Your task to perform on an android device: Play the last video I watched on Youtube Image 0: 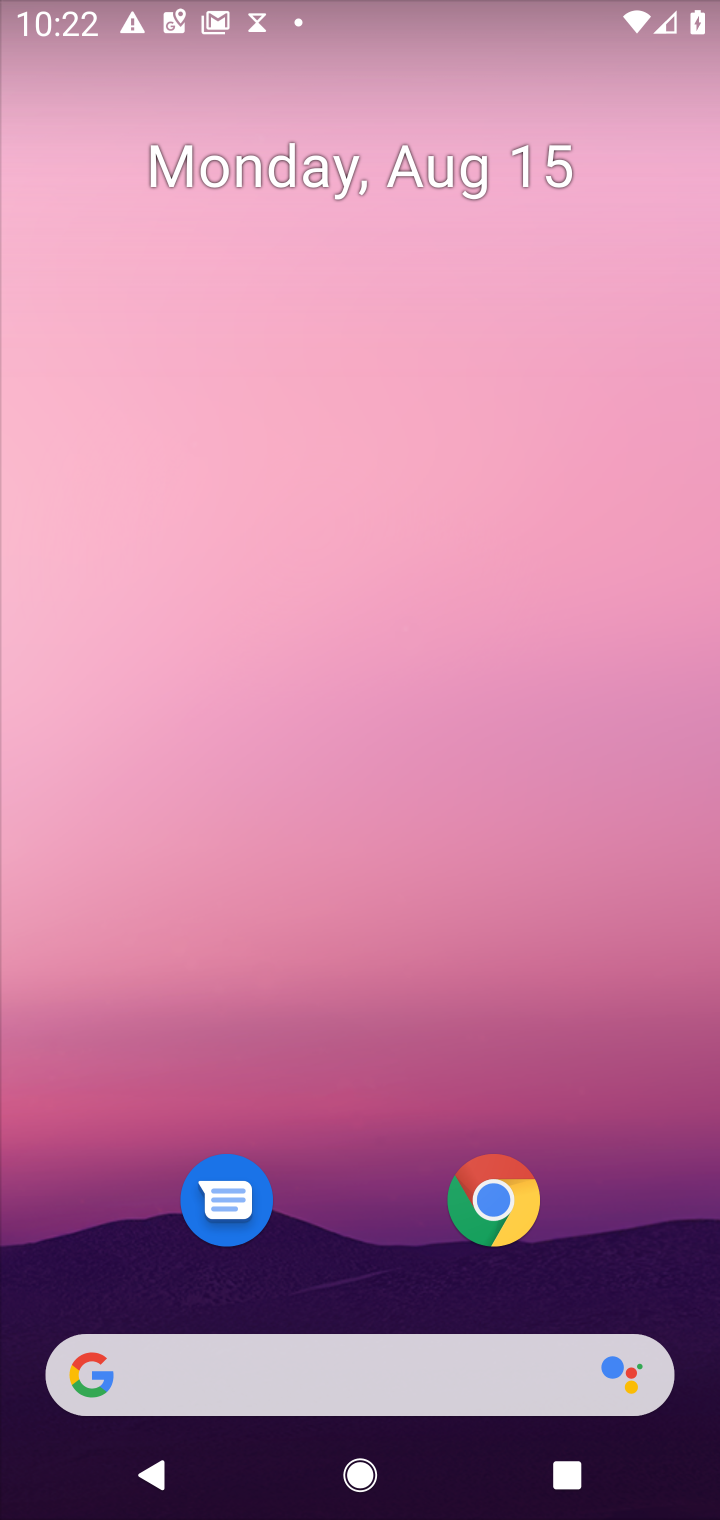
Step 0: drag from (367, 1216) to (429, 198)
Your task to perform on an android device: Play the last video I watched on Youtube Image 1: 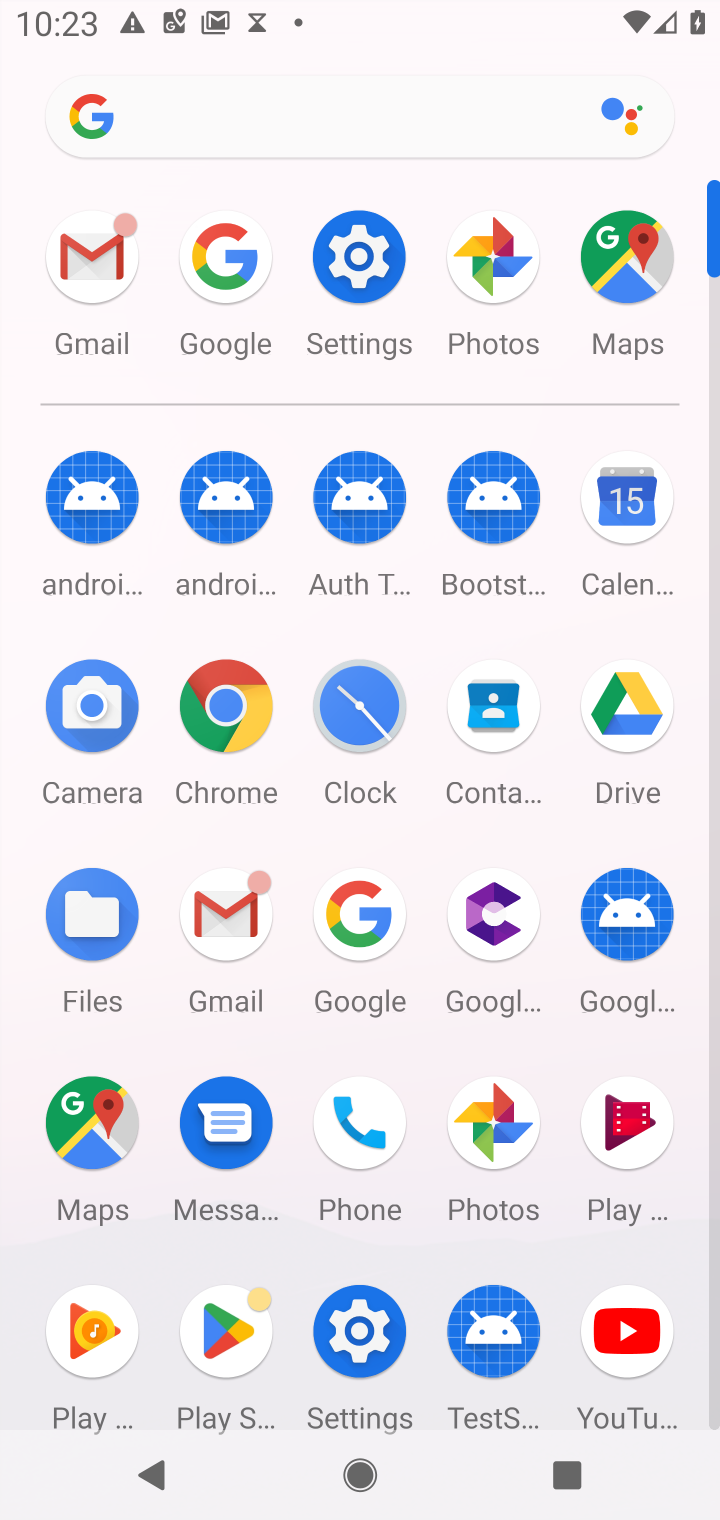
Step 1: click (614, 1319)
Your task to perform on an android device: Play the last video I watched on Youtube Image 2: 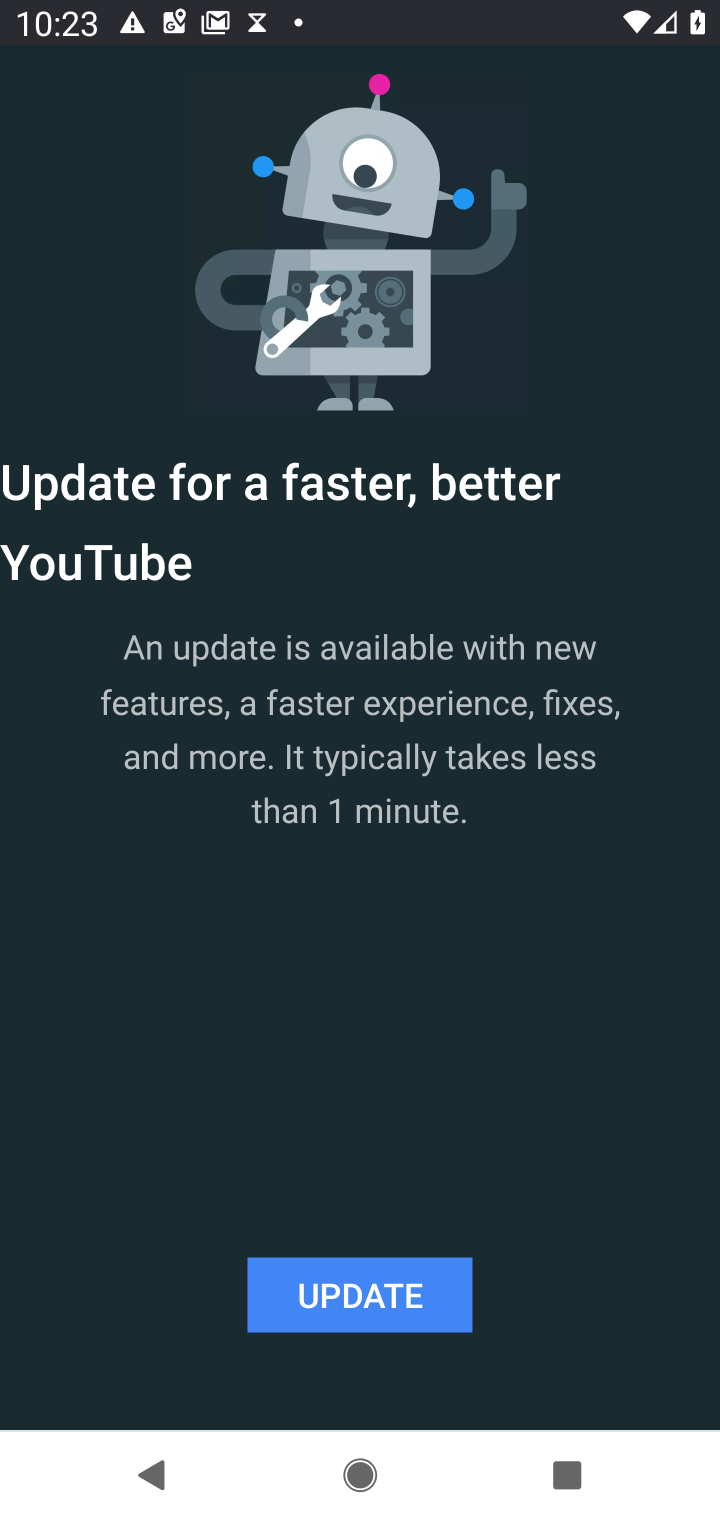
Step 2: click (402, 1278)
Your task to perform on an android device: Play the last video I watched on Youtube Image 3: 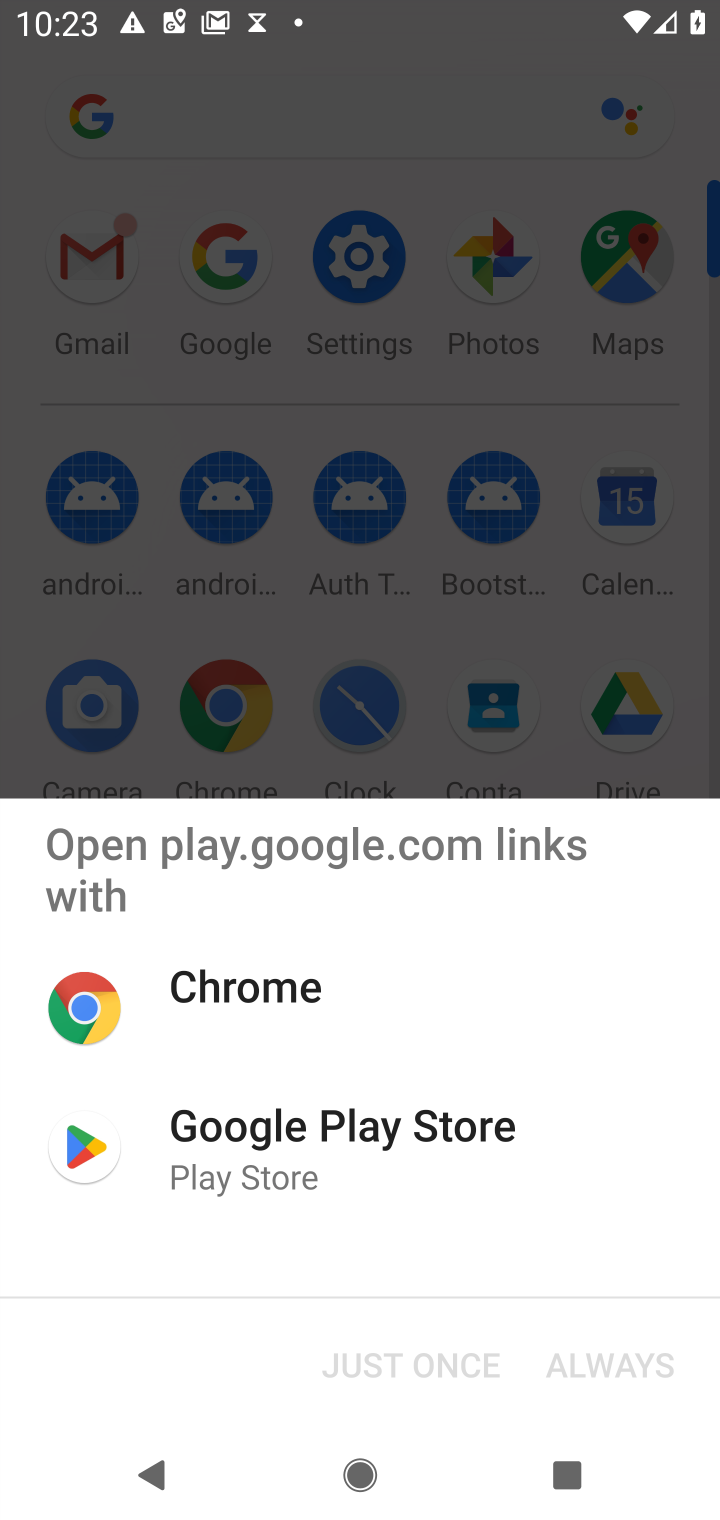
Step 3: click (287, 1131)
Your task to perform on an android device: Play the last video I watched on Youtube Image 4: 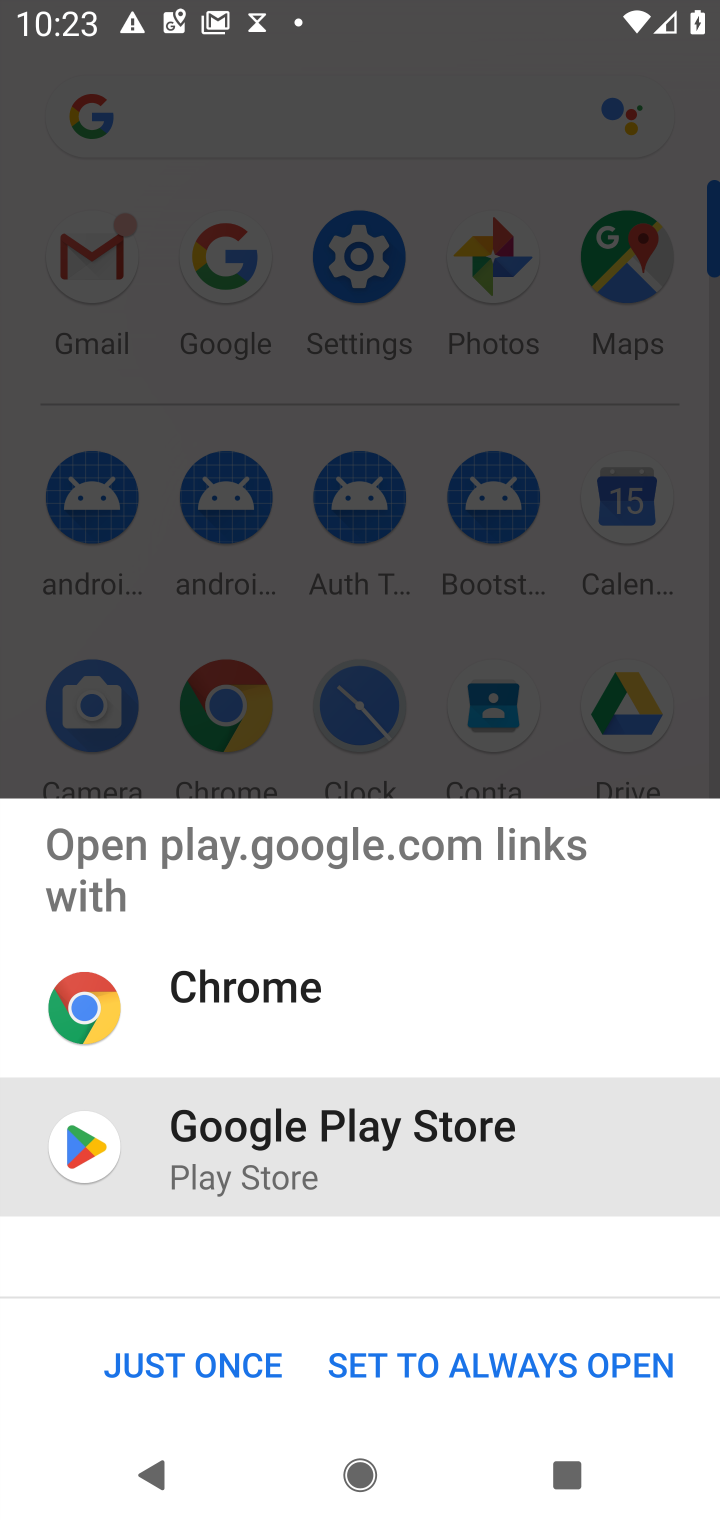
Step 4: click (236, 1378)
Your task to perform on an android device: Play the last video I watched on Youtube Image 5: 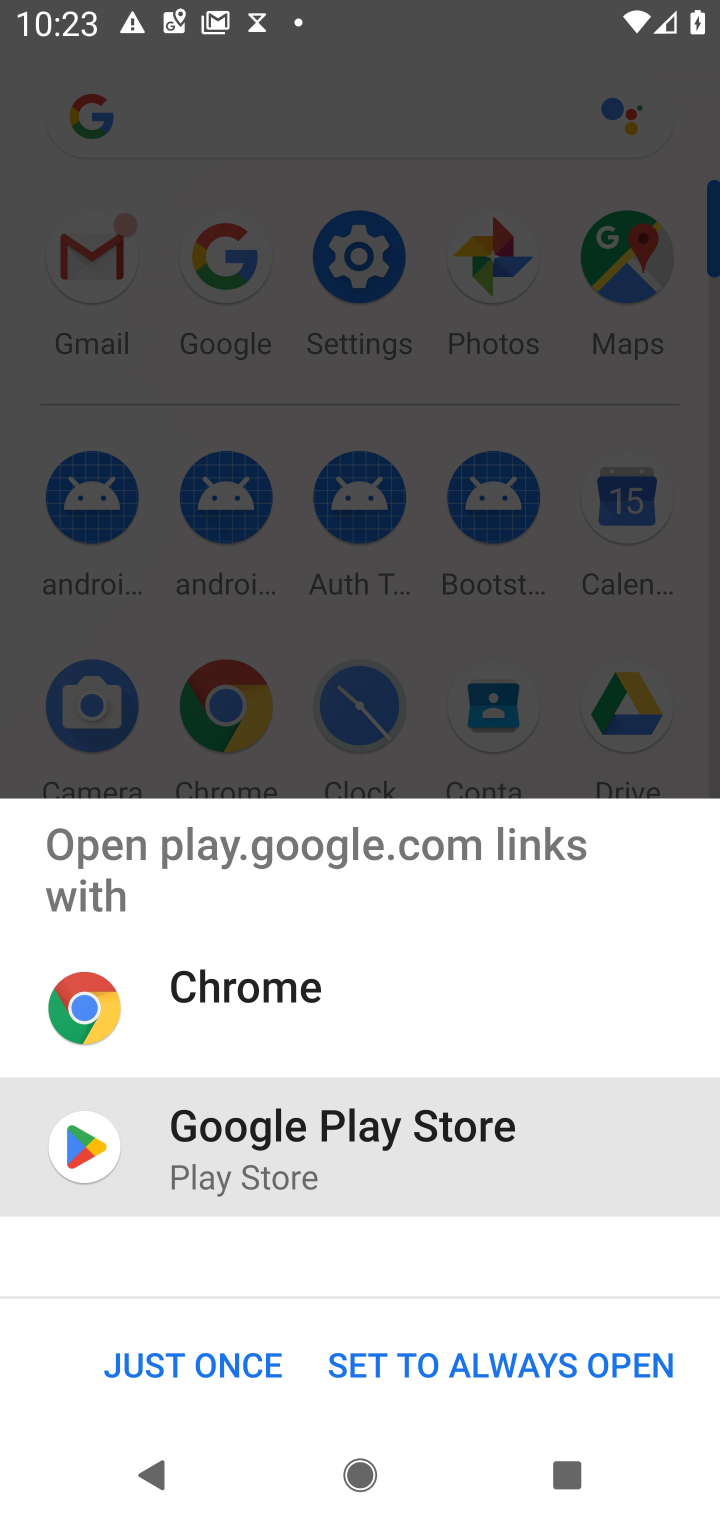
Step 5: click (183, 1360)
Your task to perform on an android device: Play the last video I watched on Youtube Image 6: 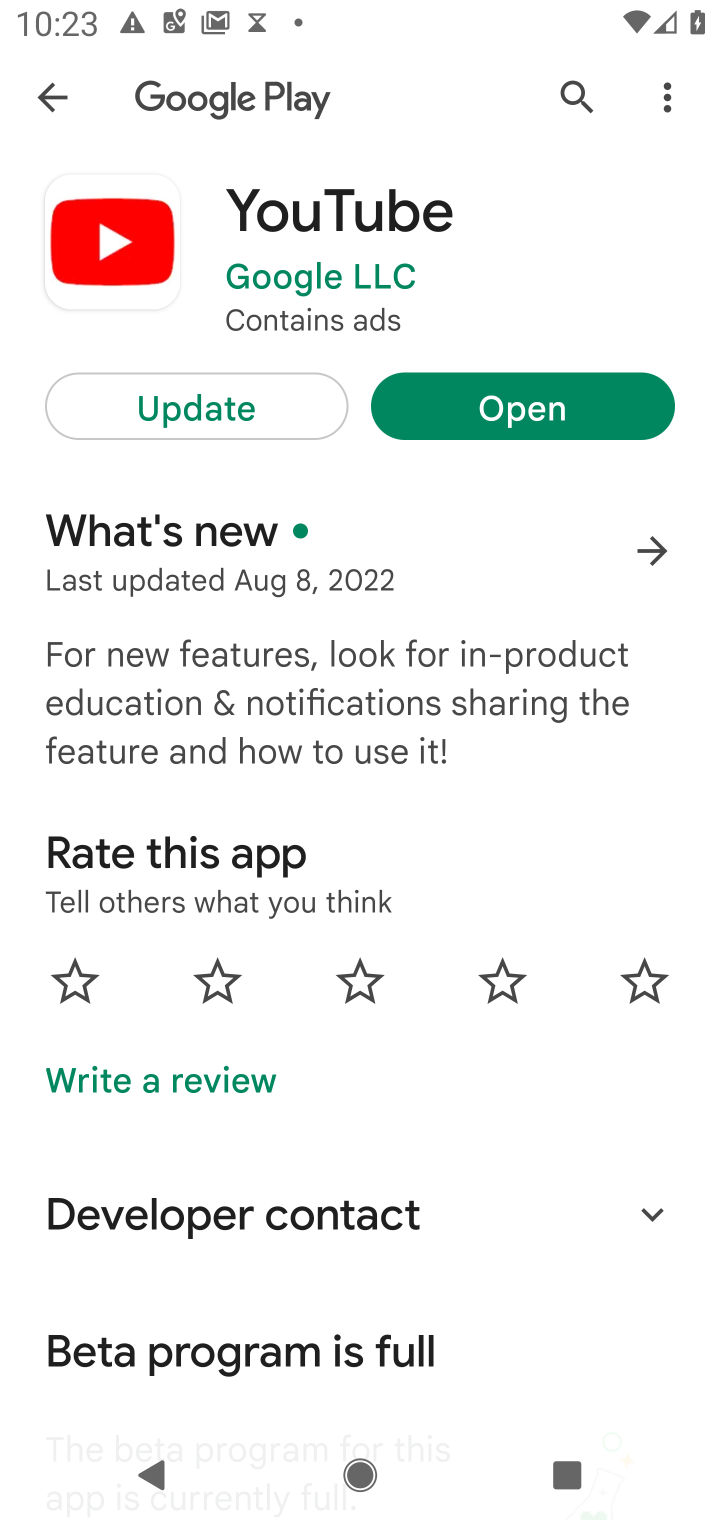
Step 6: click (230, 430)
Your task to perform on an android device: Play the last video I watched on Youtube Image 7: 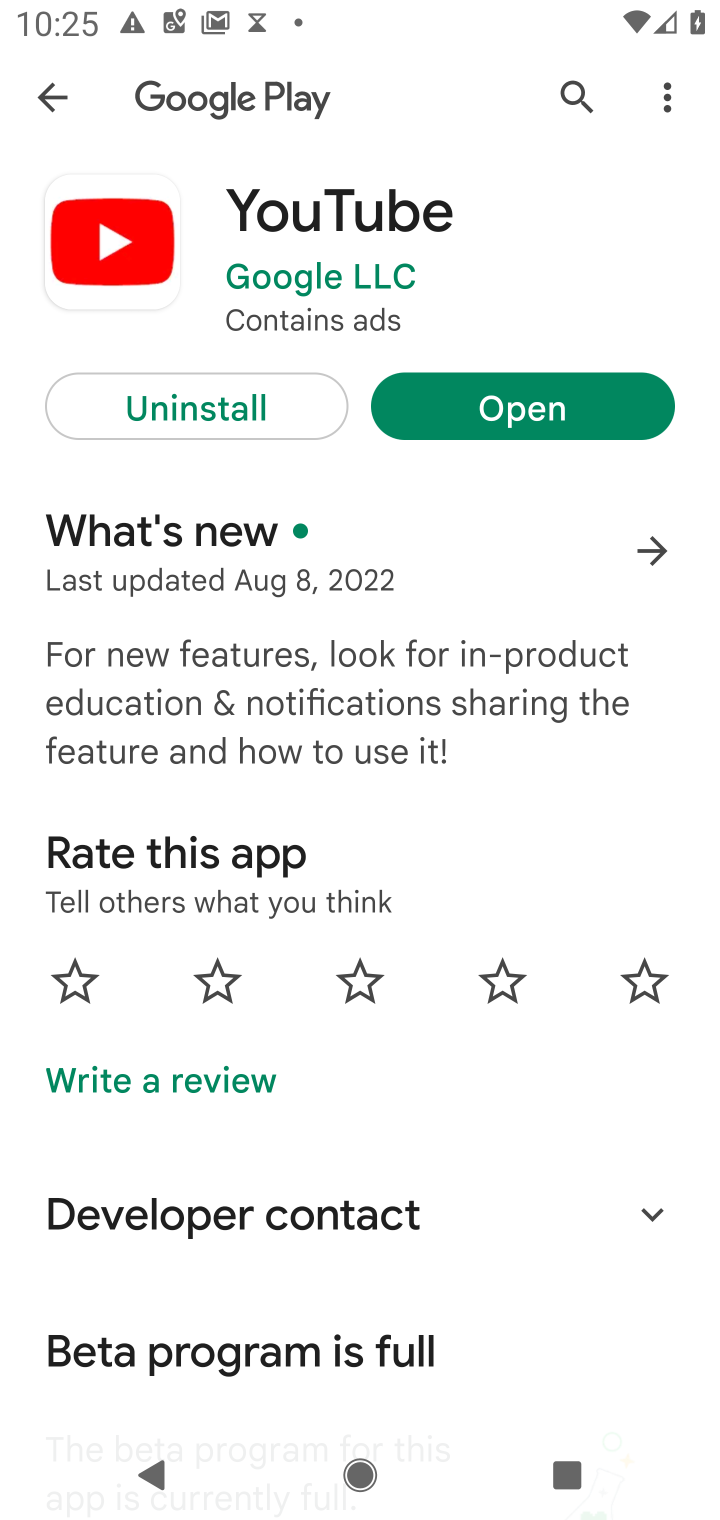
Step 7: click (488, 409)
Your task to perform on an android device: Play the last video I watched on Youtube Image 8: 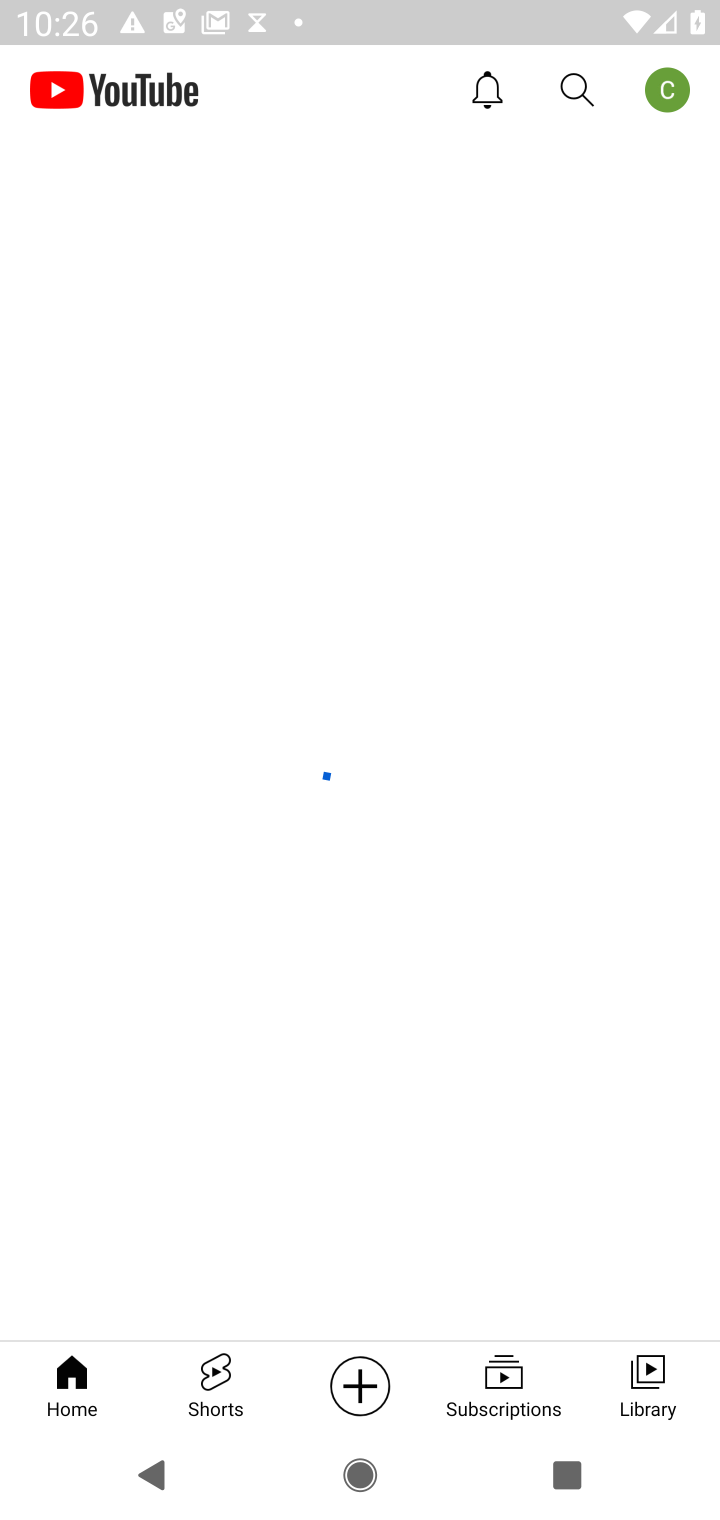
Step 8: click (633, 1403)
Your task to perform on an android device: Play the last video I watched on Youtube Image 9: 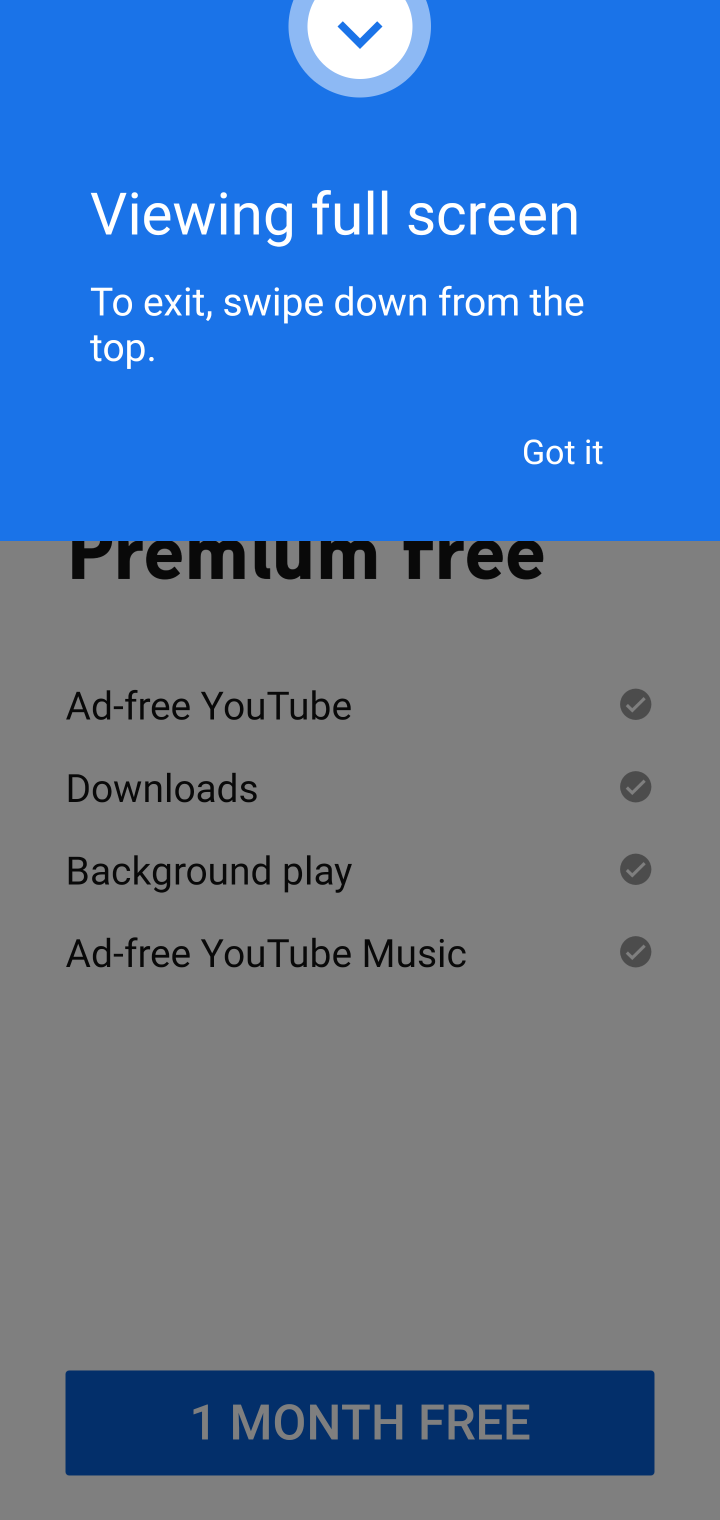
Step 9: click (586, 453)
Your task to perform on an android device: Play the last video I watched on Youtube Image 10: 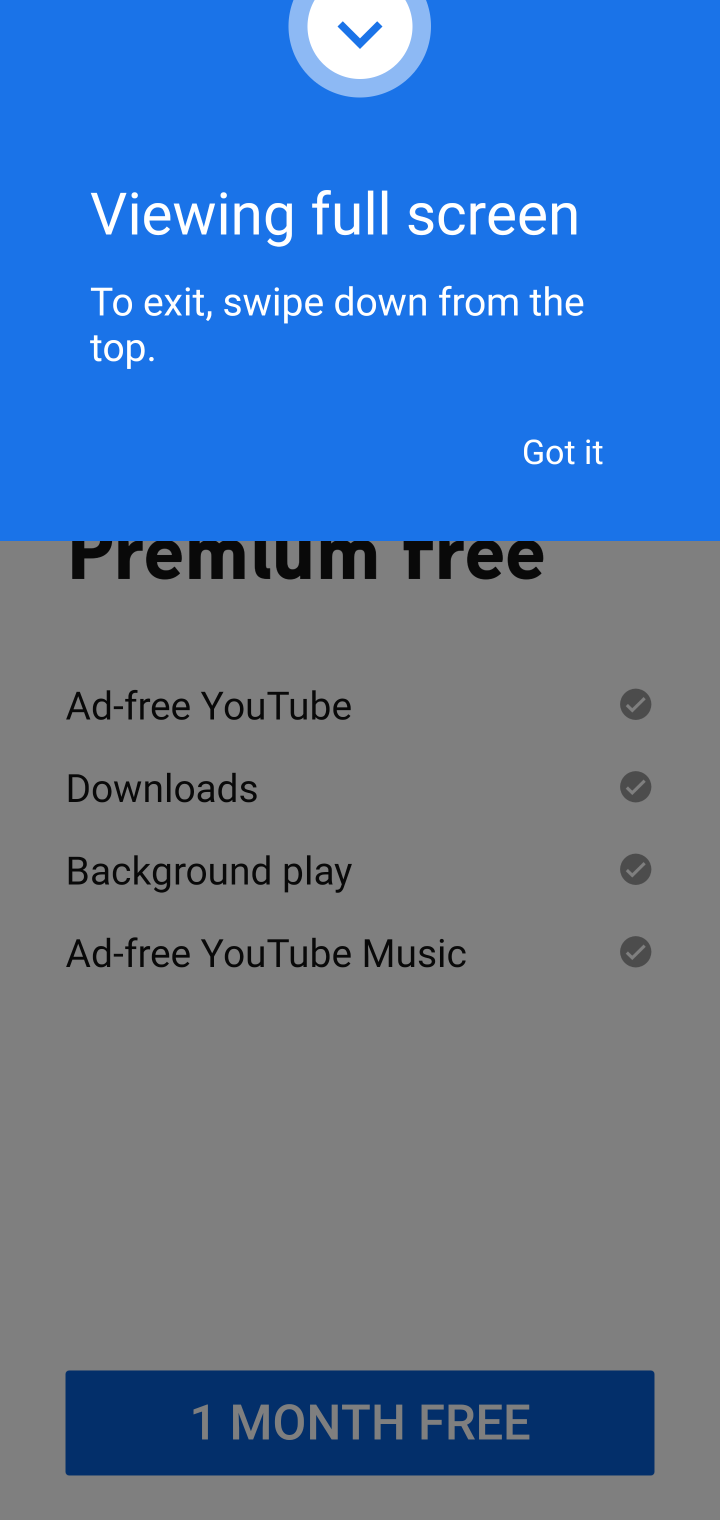
Step 10: click (540, 469)
Your task to perform on an android device: Play the last video I watched on Youtube Image 11: 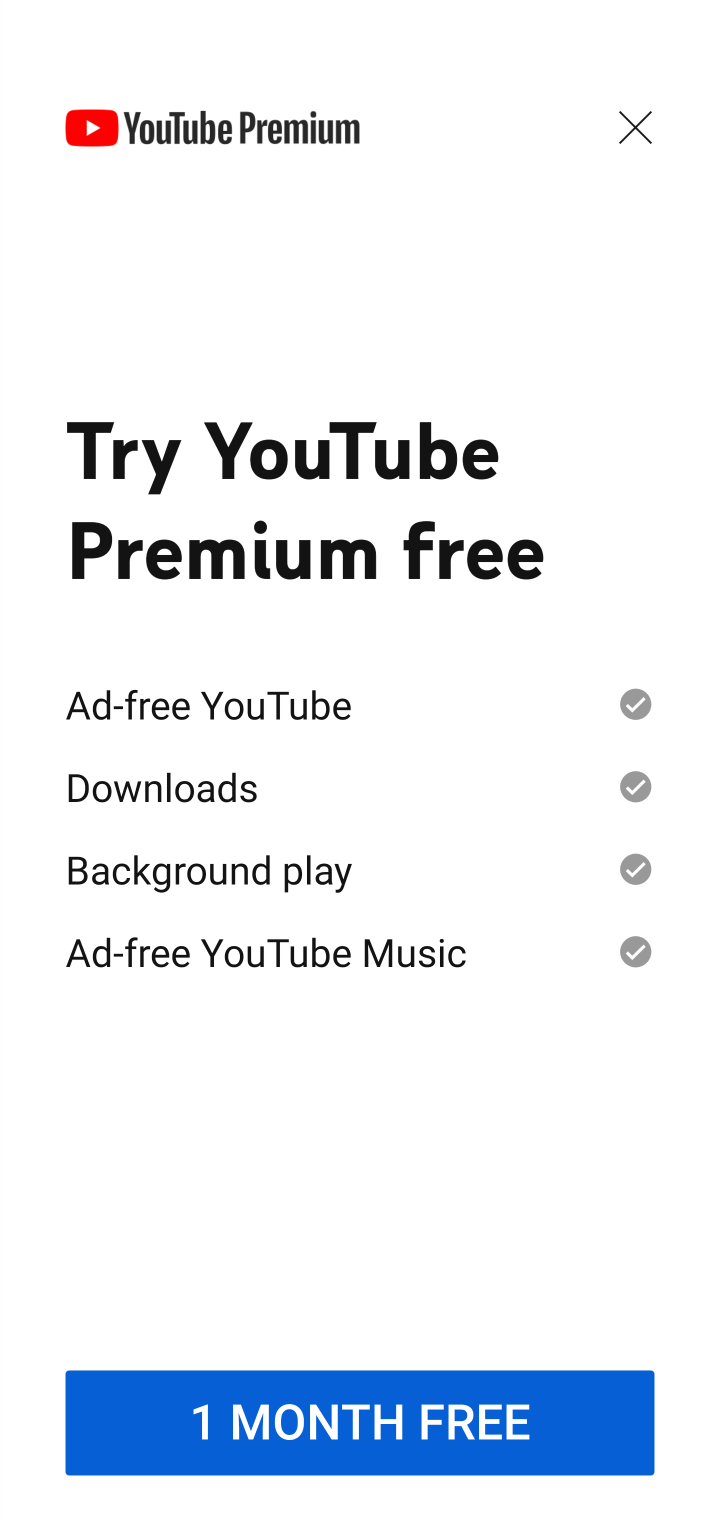
Step 11: click (644, 135)
Your task to perform on an android device: Play the last video I watched on Youtube Image 12: 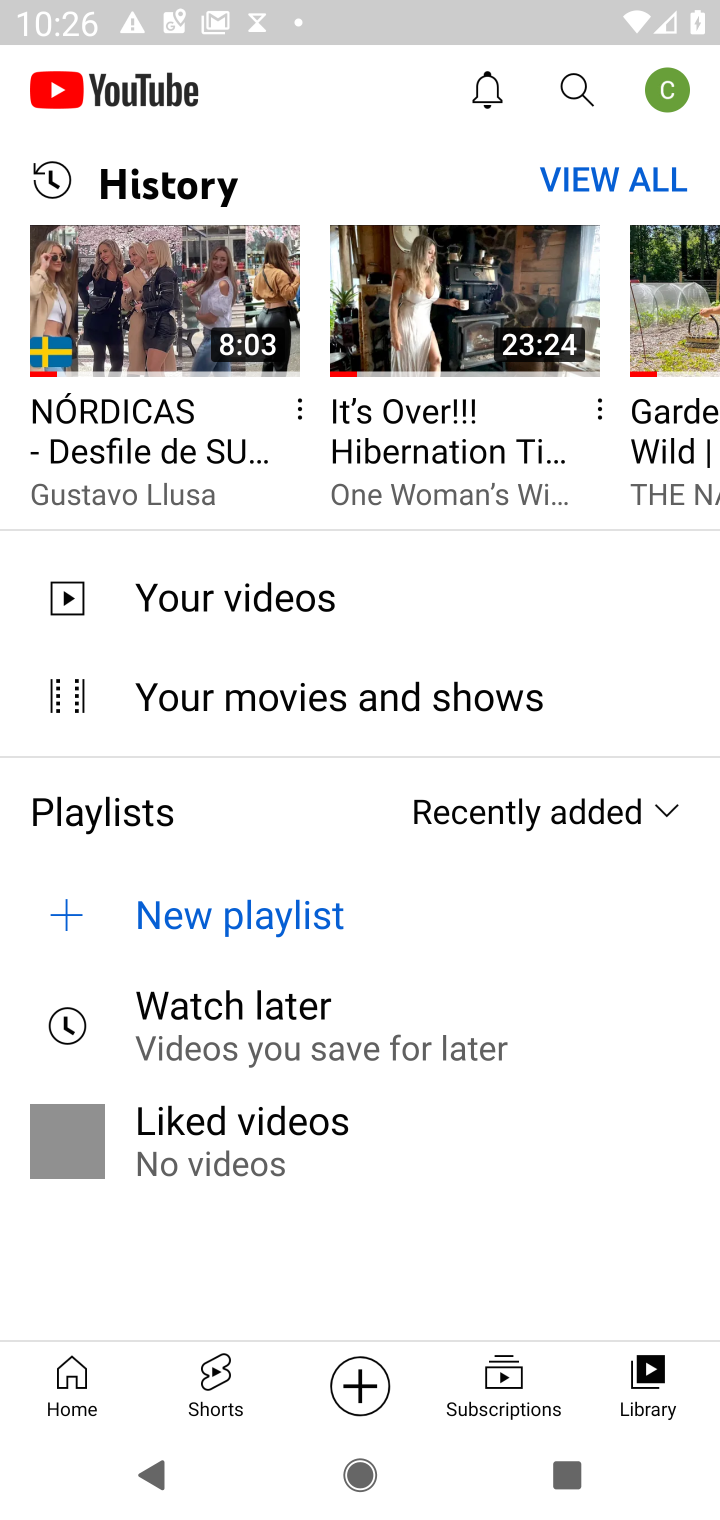
Step 12: click (184, 344)
Your task to perform on an android device: Play the last video I watched on Youtube Image 13: 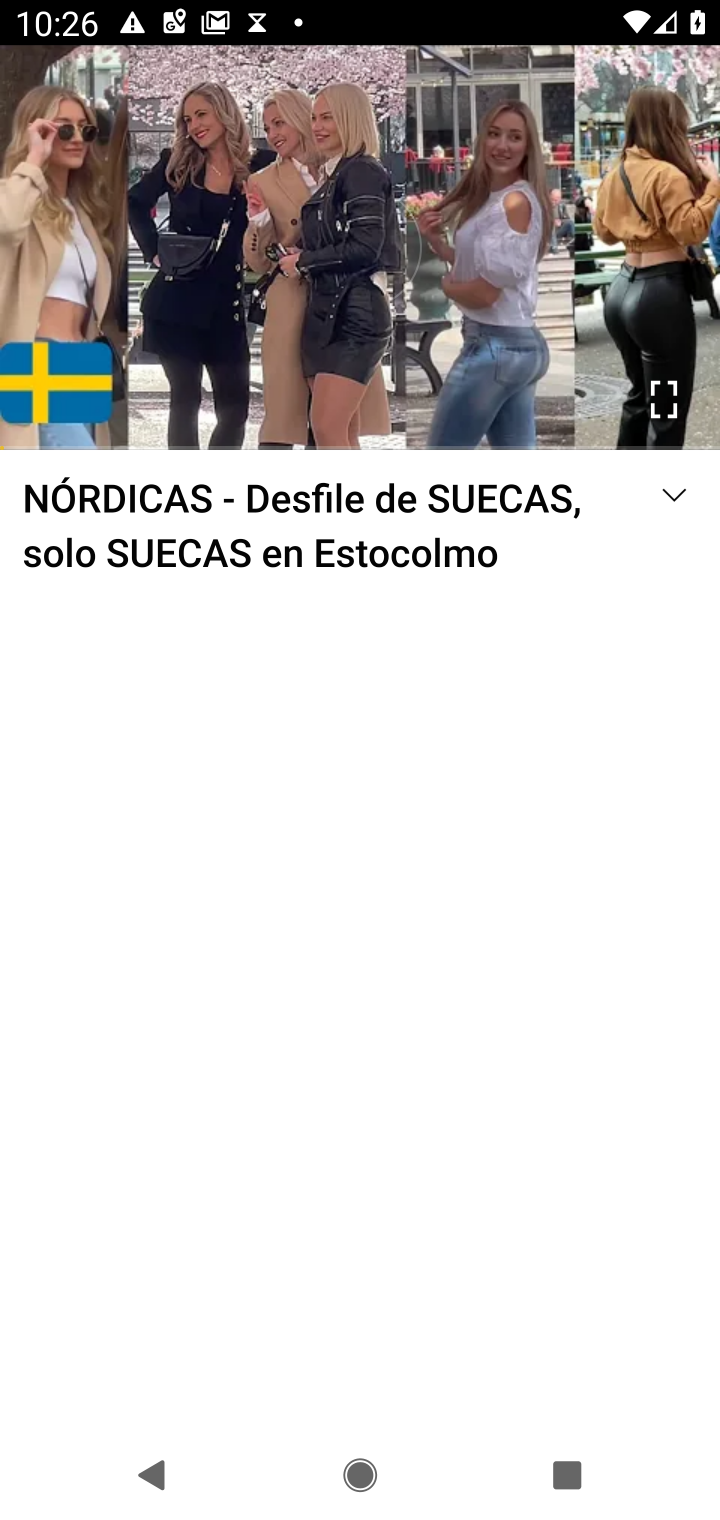
Step 13: click (355, 204)
Your task to perform on an android device: Play the last video I watched on Youtube Image 14: 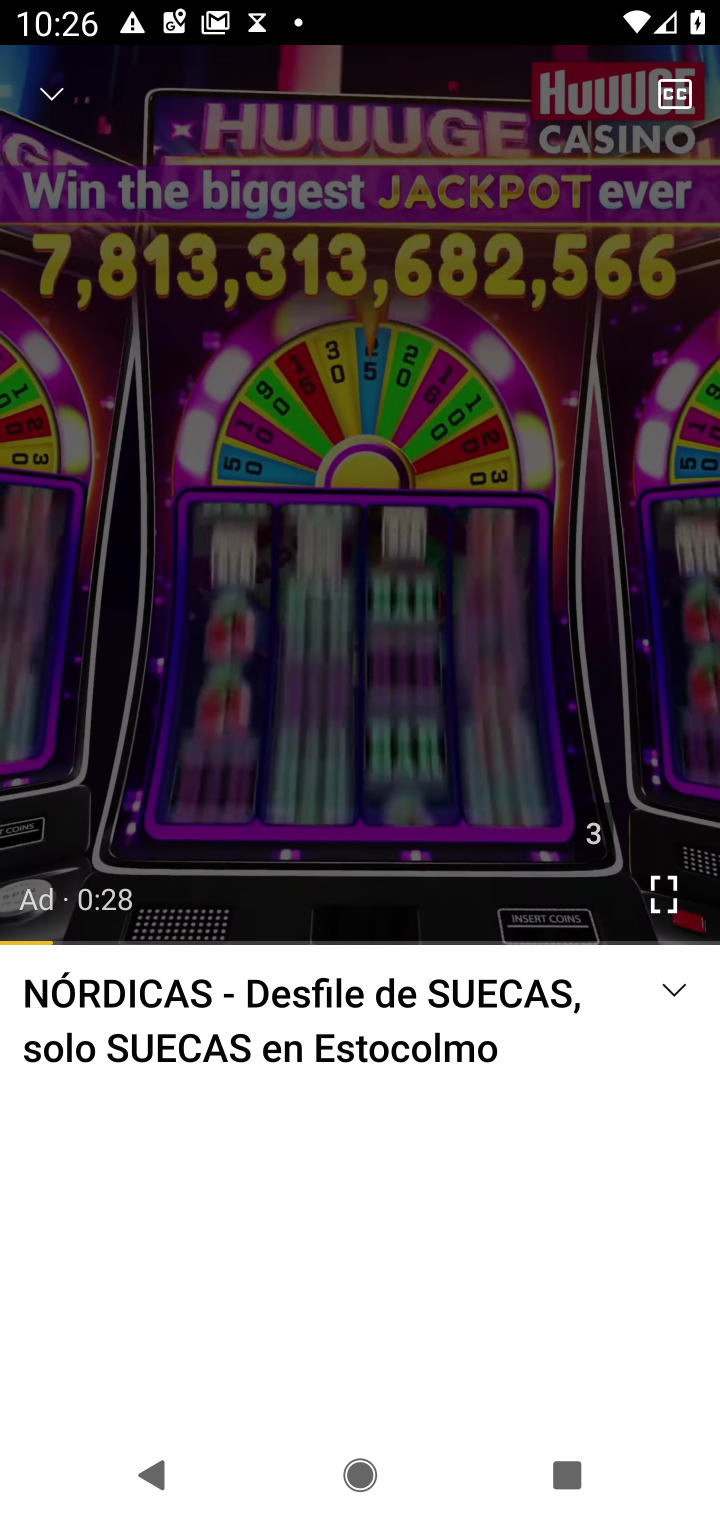
Step 14: click (419, 624)
Your task to perform on an android device: Play the last video I watched on Youtube Image 15: 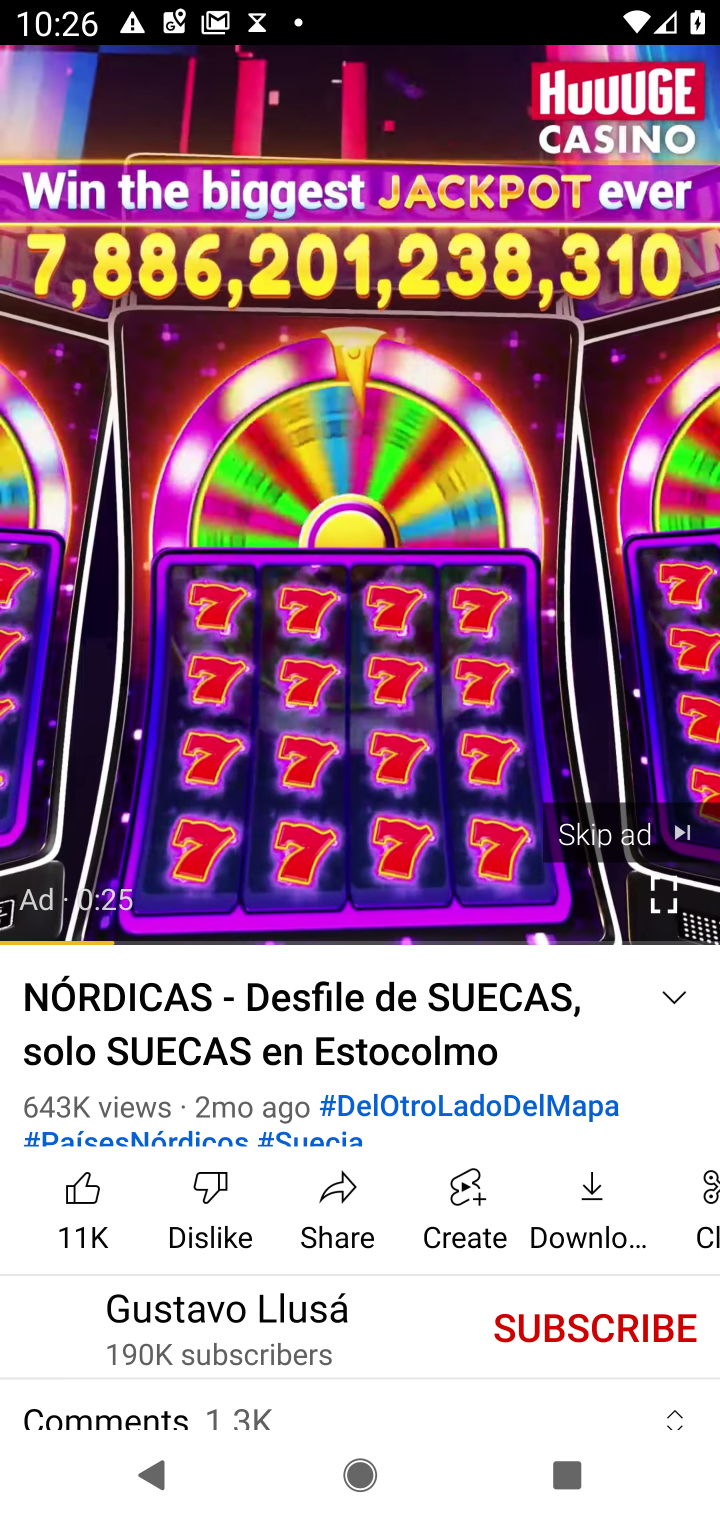
Step 15: click (346, 497)
Your task to perform on an android device: Play the last video I watched on Youtube Image 16: 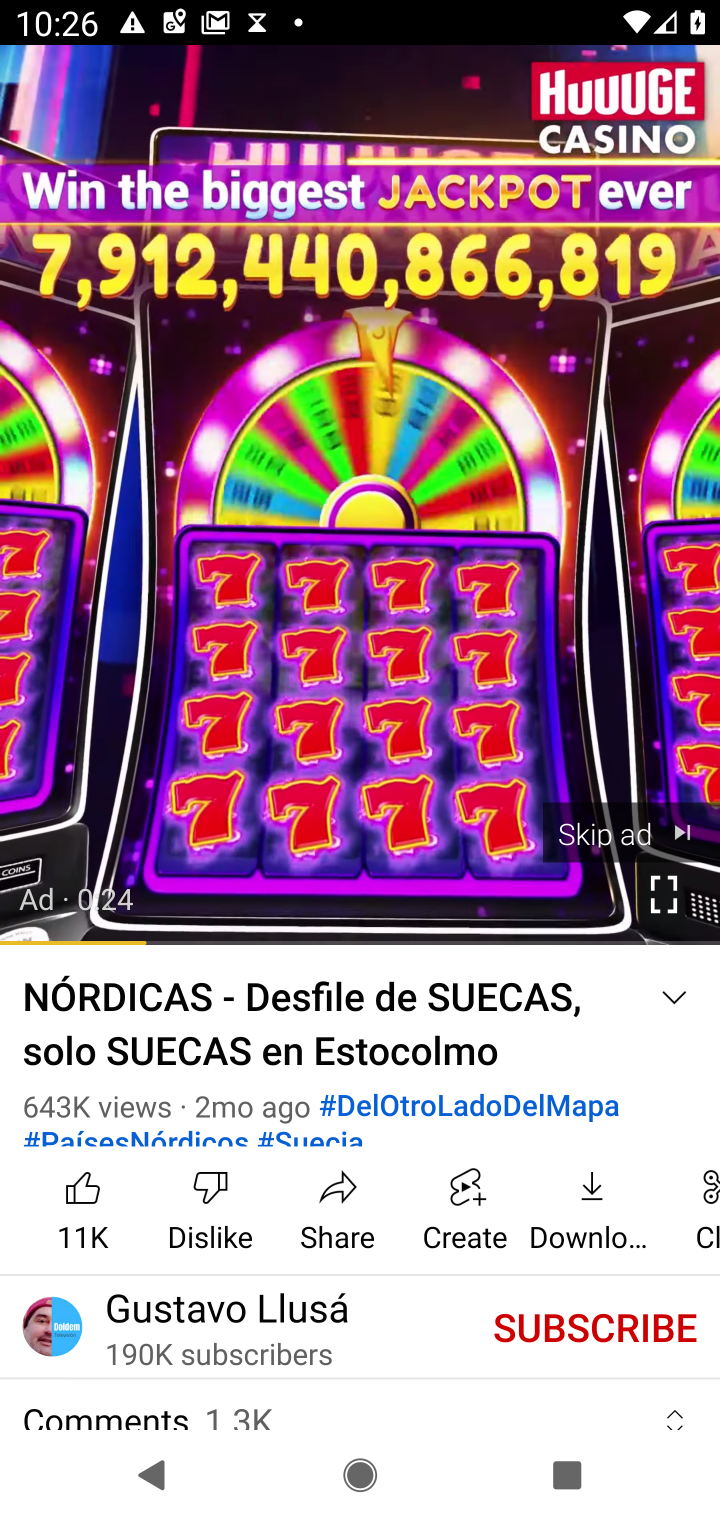
Step 16: click (366, 633)
Your task to perform on an android device: Play the last video I watched on Youtube Image 17: 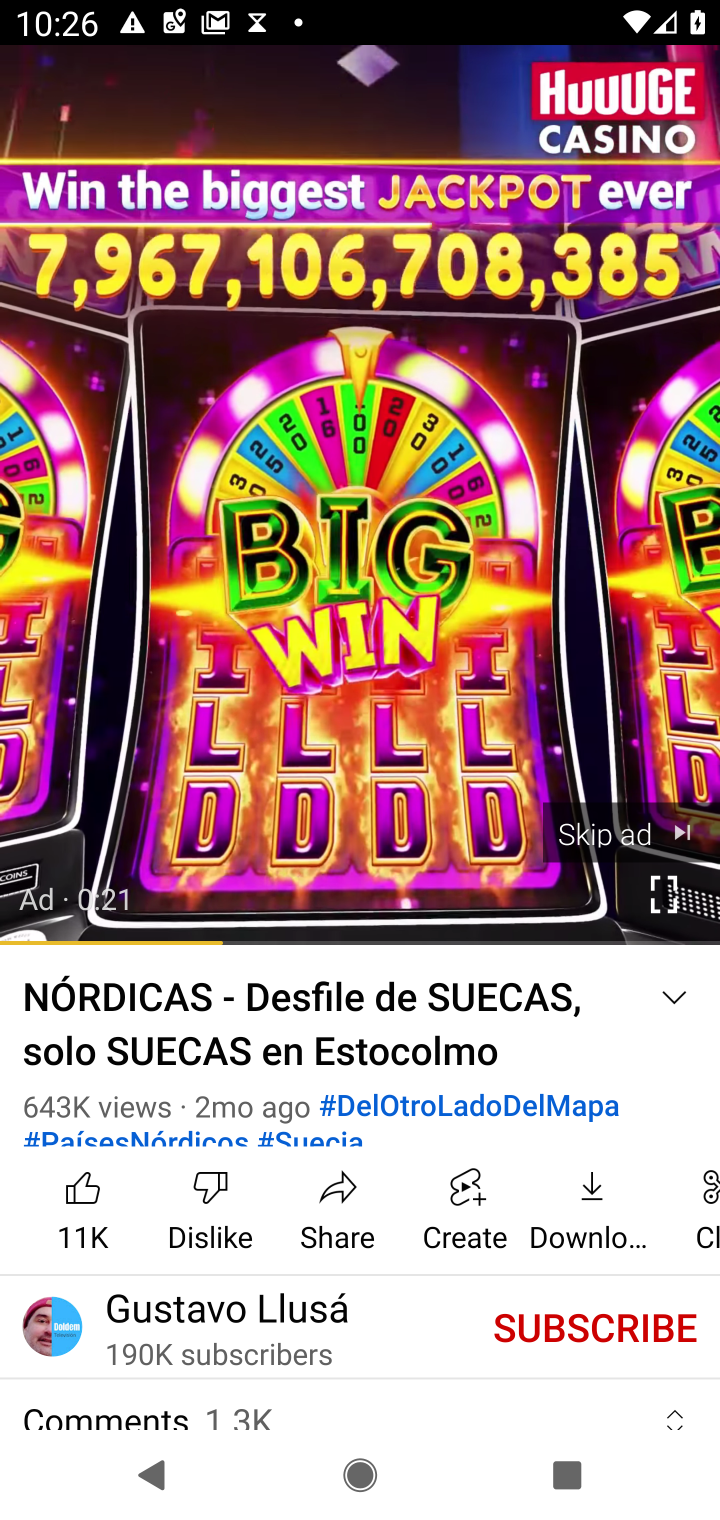
Step 17: click (465, 581)
Your task to perform on an android device: Play the last video I watched on Youtube Image 18: 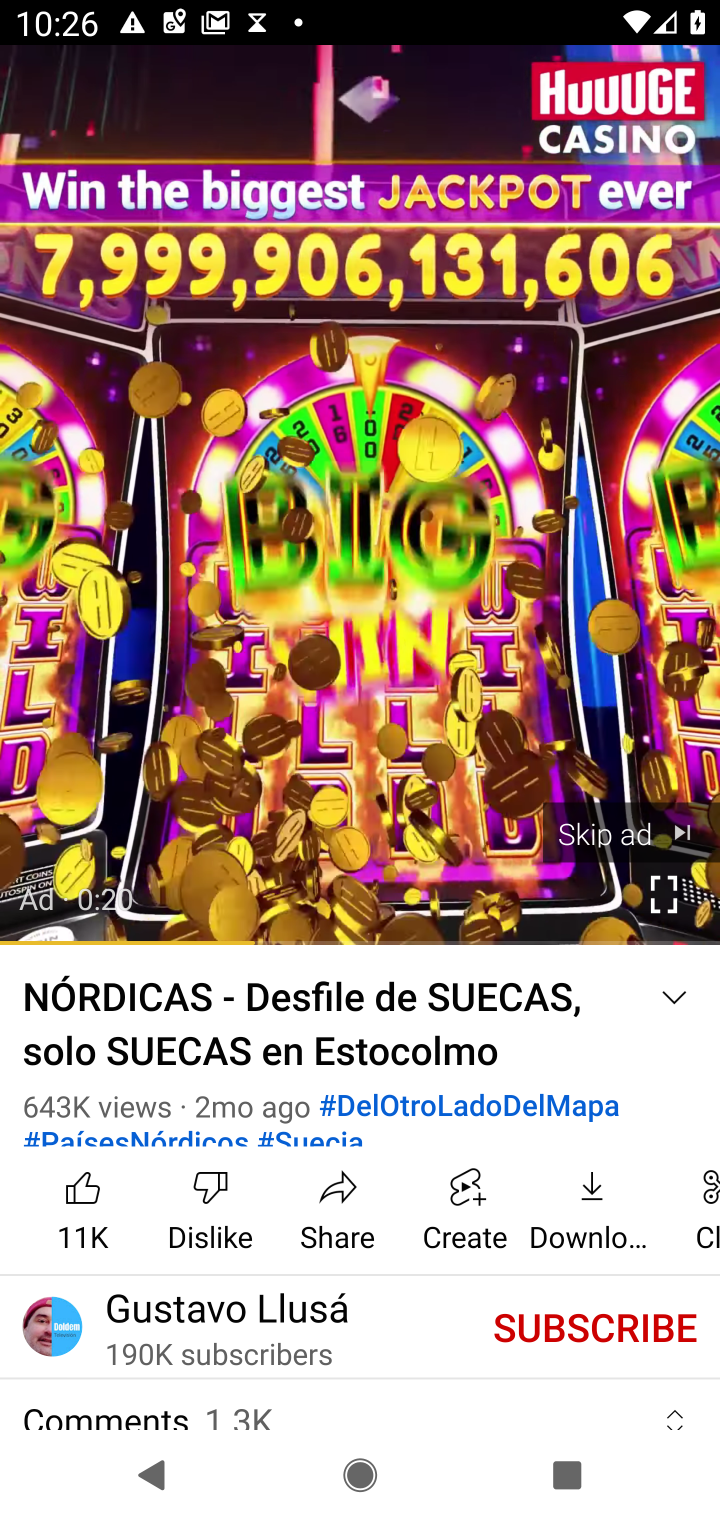
Step 18: click (405, 600)
Your task to perform on an android device: Play the last video I watched on Youtube Image 19: 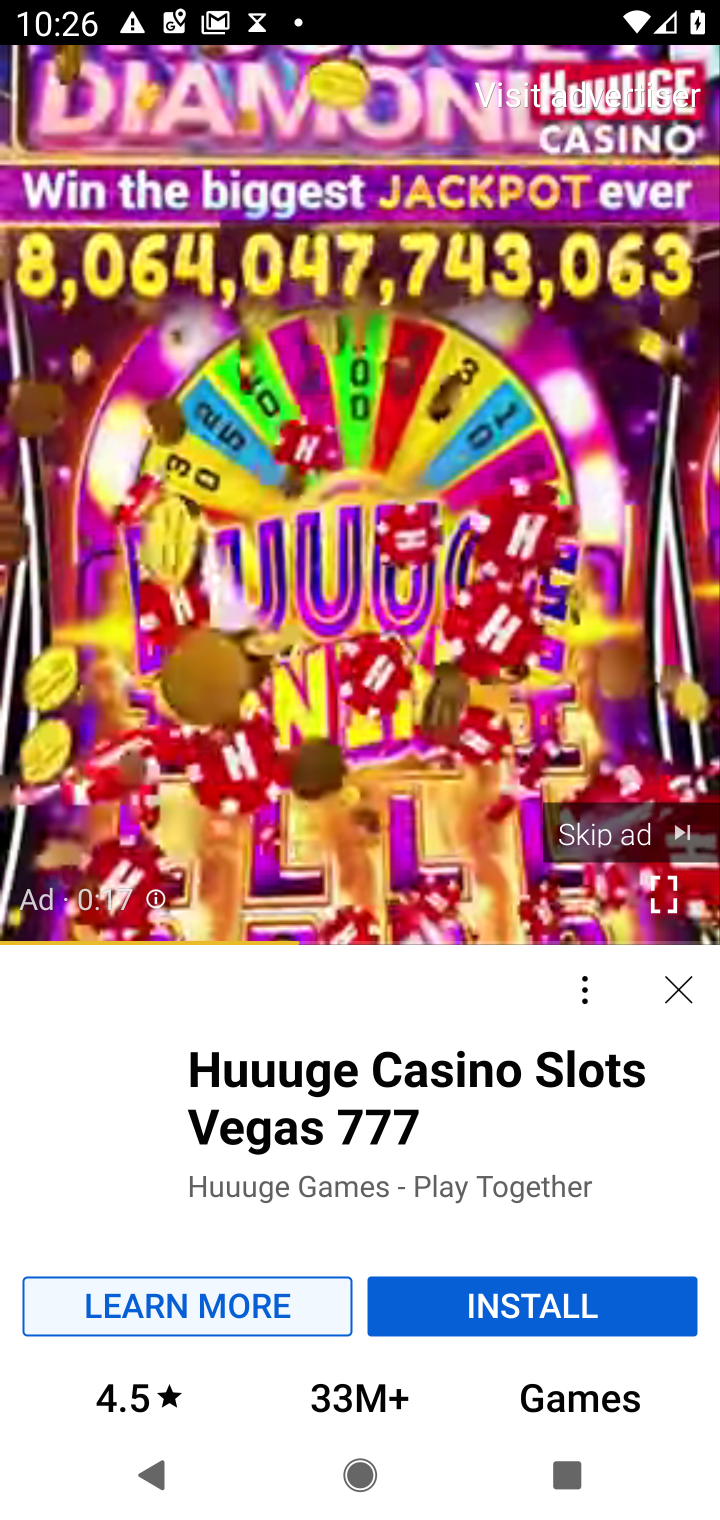
Step 19: task complete